Your task to perform on an android device: Open Yahoo.com Image 0: 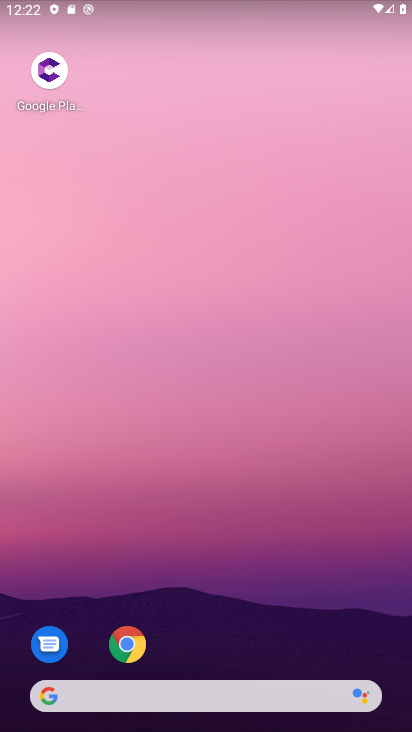
Step 0: click (134, 649)
Your task to perform on an android device: Open Yahoo.com Image 1: 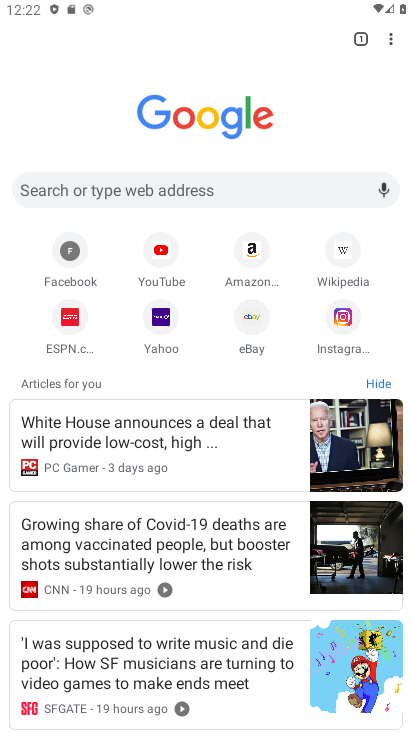
Step 1: click (164, 313)
Your task to perform on an android device: Open Yahoo.com Image 2: 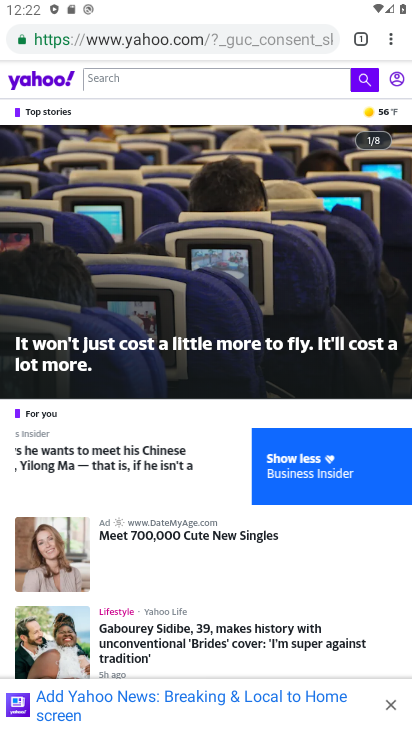
Step 2: task complete